Your task to perform on an android device: turn off wifi Image 0: 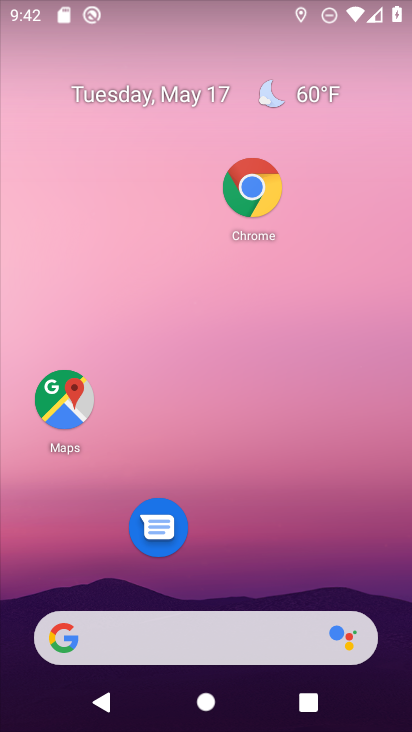
Step 0: drag from (283, 552) to (335, 156)
Your task to perform on an android device: turn off wifi Image 1: 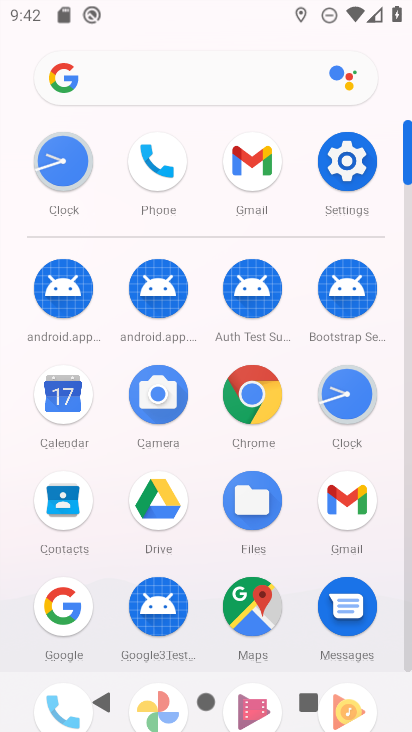
Step 1: click (340, 186)
Your task to perform on an android device: turn off wifi Image 2: 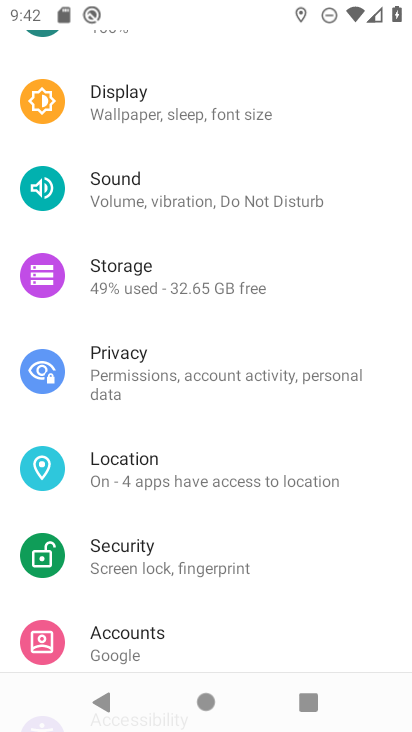
Step 2: drag from (241, 163) to (192, 479)
Your task to perform on an android device: turn off wifi Image 3: 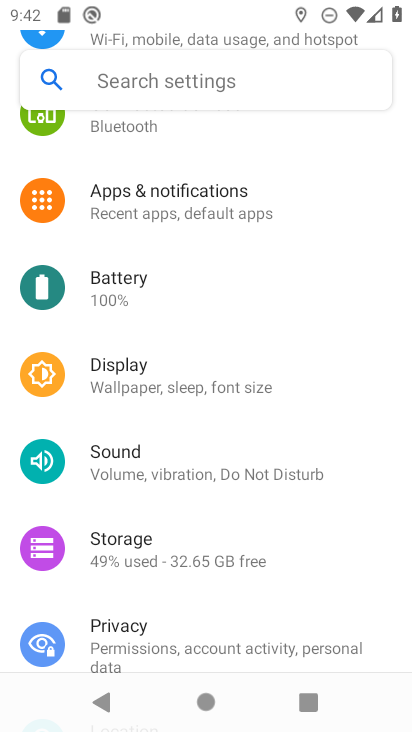
Step 3: drag from (192, 160) to (213, 330)
Your task to perform on an android device: turn off wifi Image 4: 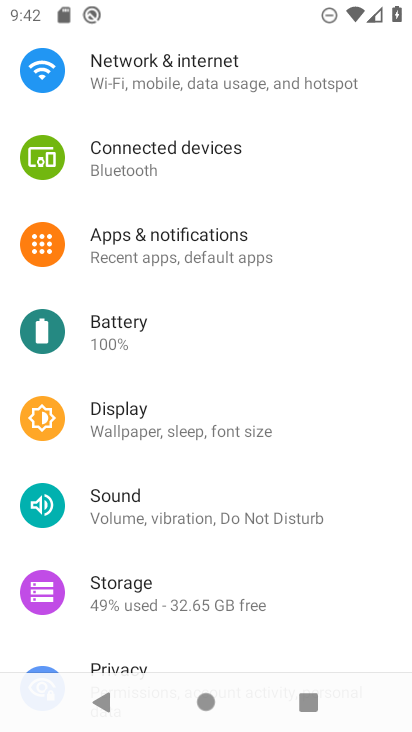
Step 4: click (260, 250)
Your task to perform on an android device: turn off wifi Image 5: 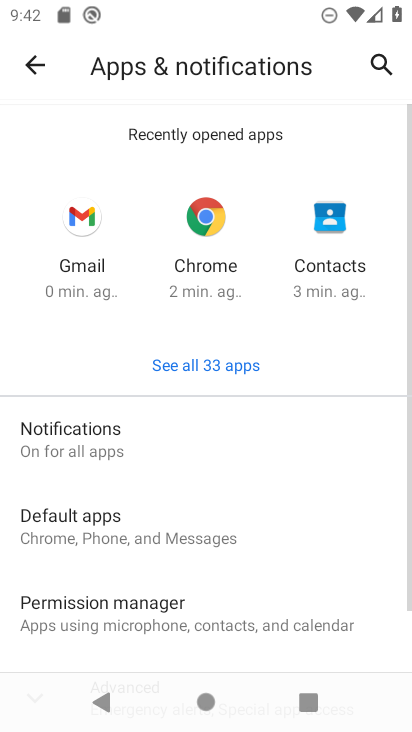
Step 5: click (218, 60)
Your task to perform on an android device: turn off wifi Image 6: 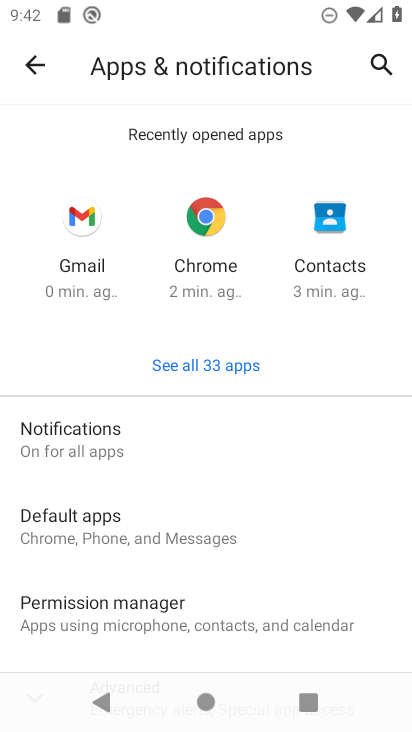
Step 6: click (52, 57)
Your task to perform on an android device: turn off wifi Image 7: 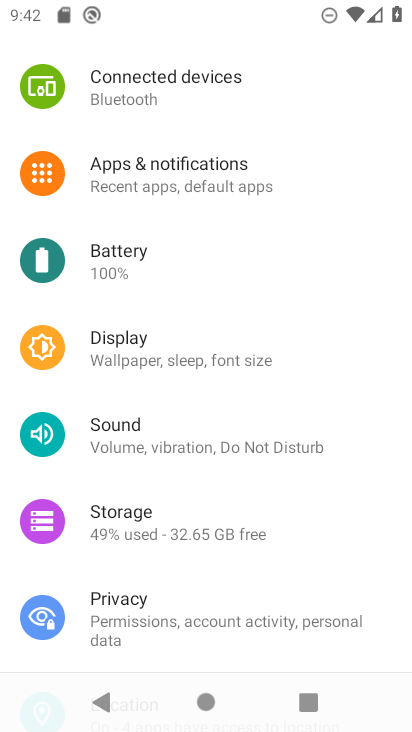
Step 7: drag from (178, 87) to (208, 377)
Your task to perform on an android device: turn off wifi Image 8: 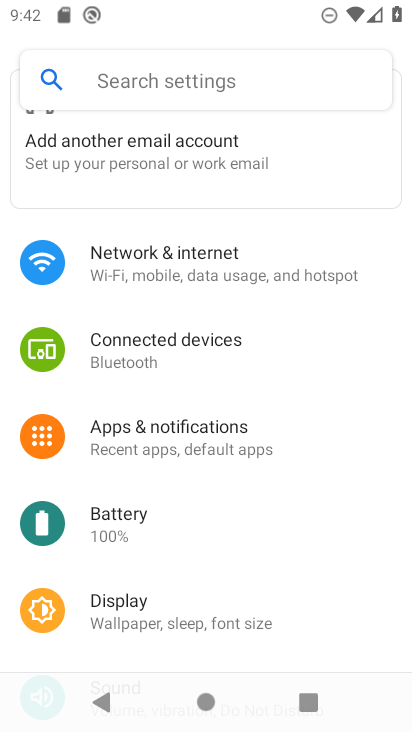
Step 8: click (214, 262)
Your task to perform on an android device: turn off wifi Image 9: 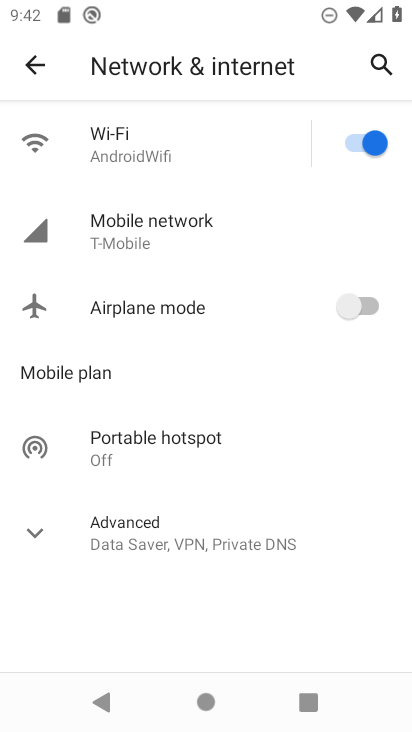
Step 9: click (377, 130)
Your task to perform on an android device: turn off wifi Image 10: 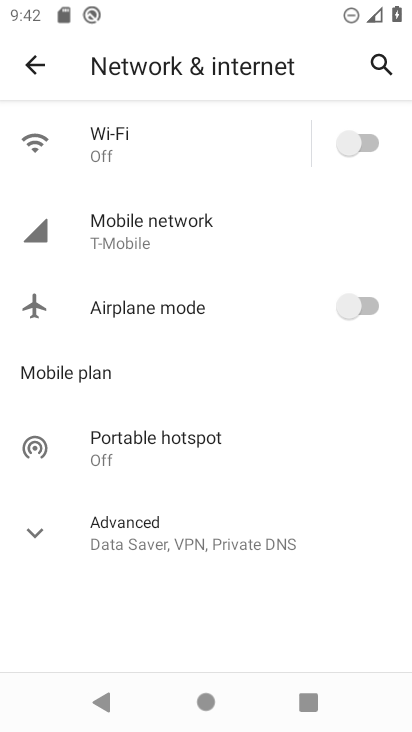
Step 10: task complete